Your task to perform on an android device: set default search engine in the chrome app Image 0: 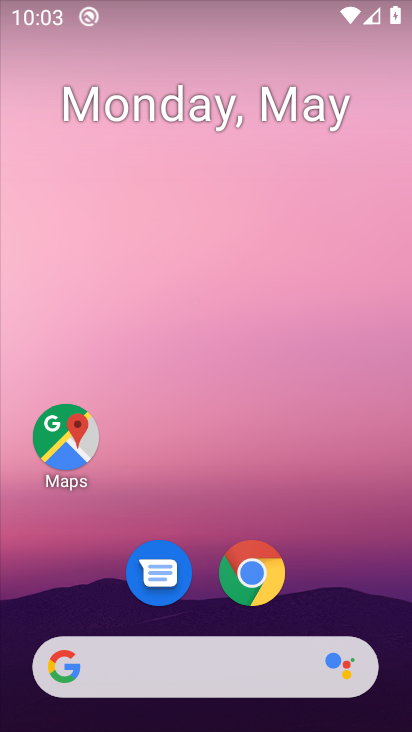
Step 0: click (253, 578)
Your task to perform on an android device: set default search engine in the chrome app Image 1: 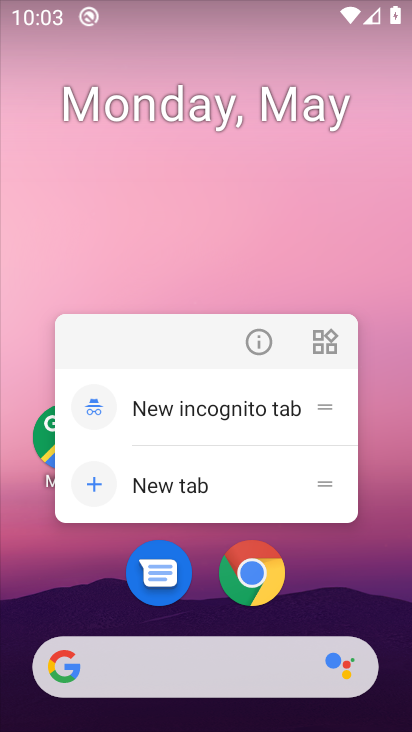
Step 1: click (267, 578)
Your task to perform on an android device: set default search engine in the chrome app Image 2: 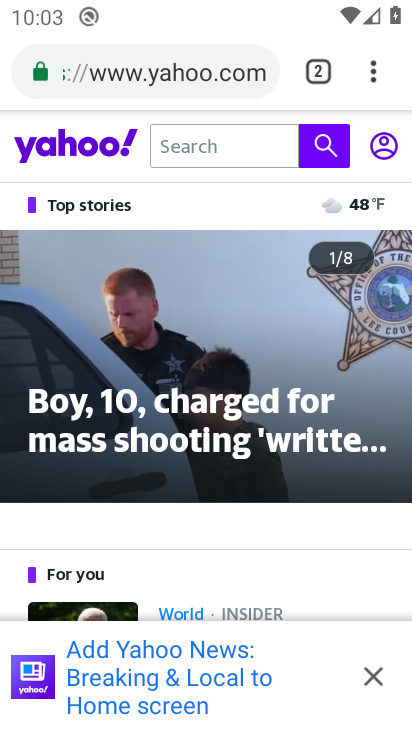
Step 2: drag from (376, 71) to (136, 568)
Your task to perform on an android device: set default search engine in the chrome app Image 3: 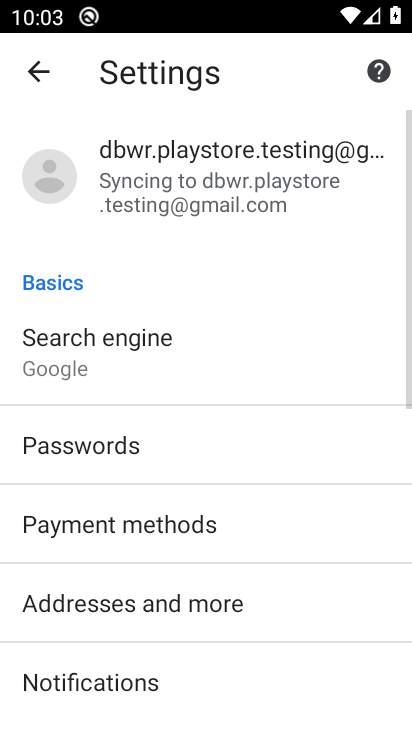
Step 3: click (128, 367)
Your task to perform on an android device: set default search engine in the chrome app Image 4: 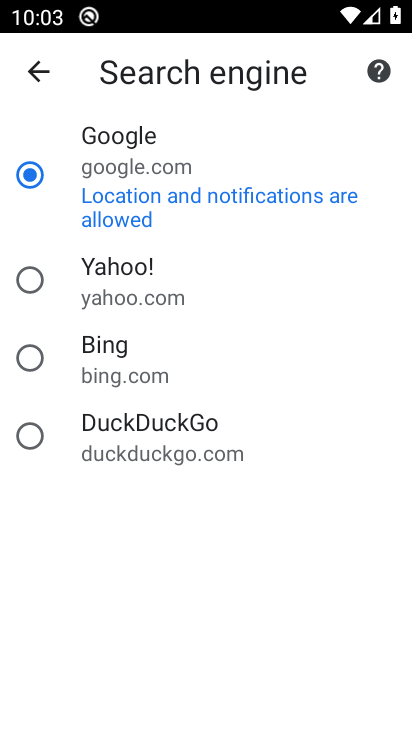
Step 4: click (44, 282)
Your task to perform on an android device: set default search engine in the chrome app Image 5: 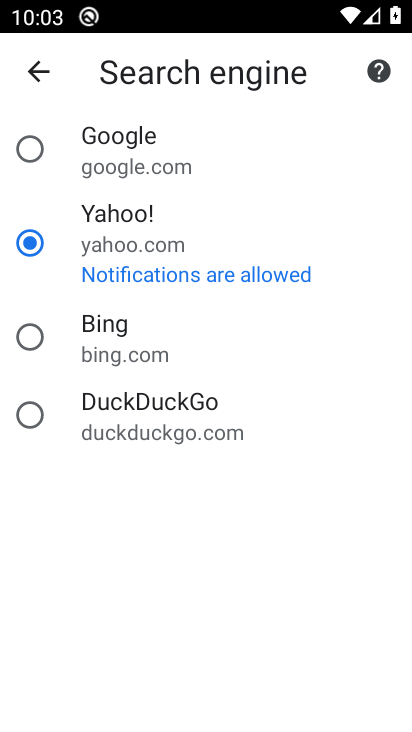
Step 5: task complete